Your task to perform on an android device: Search for a new lawnmower on Lowes.com Image 0: 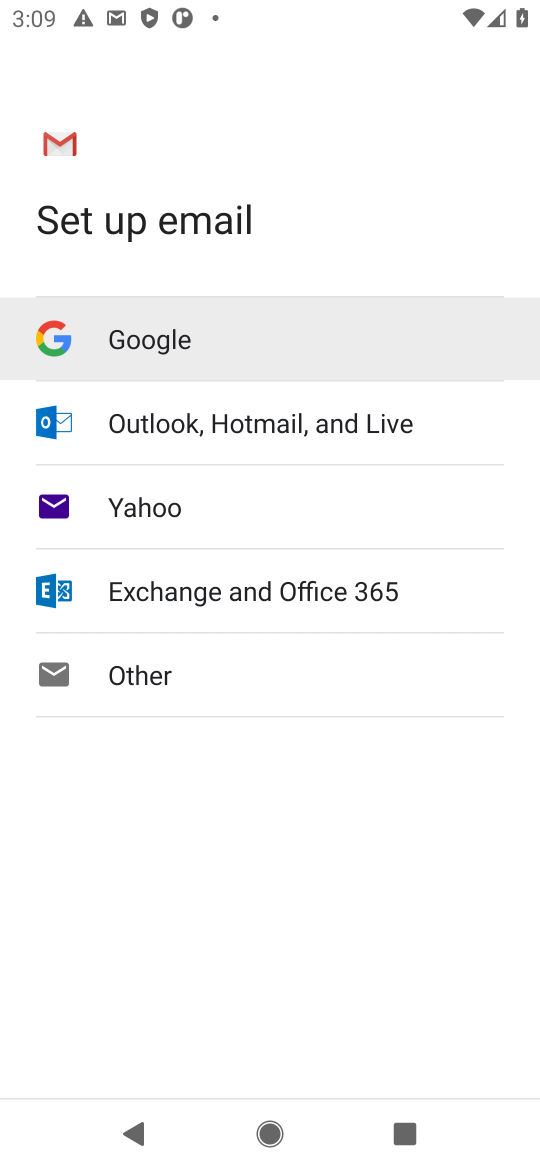
Step 0: press home button
Your task to perform on an android device: Search for a new lawnmower on Lowes.com Image 1: 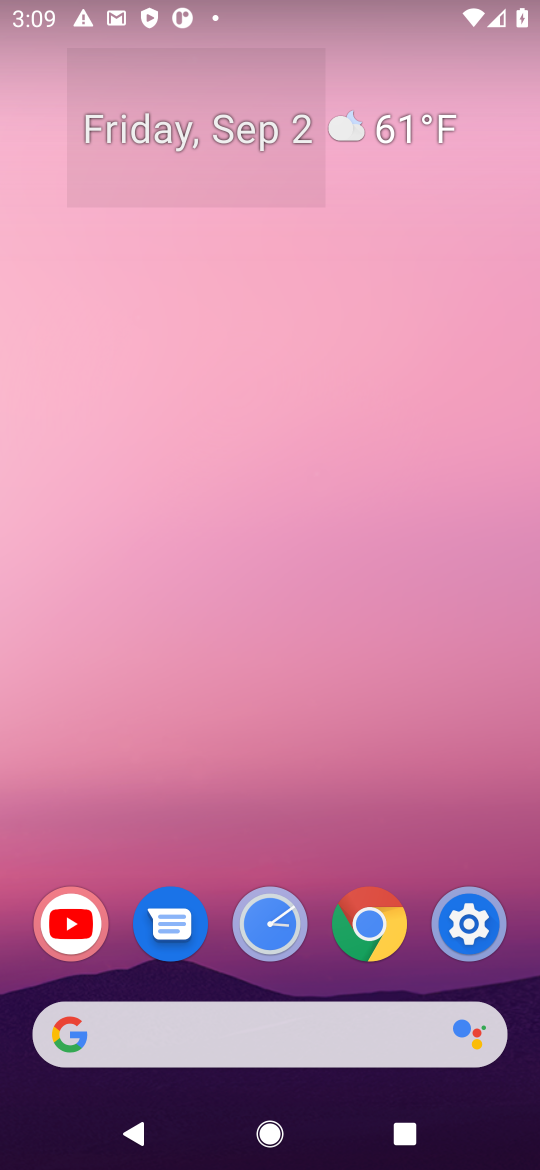
Step 1: click (388, 1032)
Your task to perform on an android device: Search for a new lawnmower on Lowes.com Image 2: 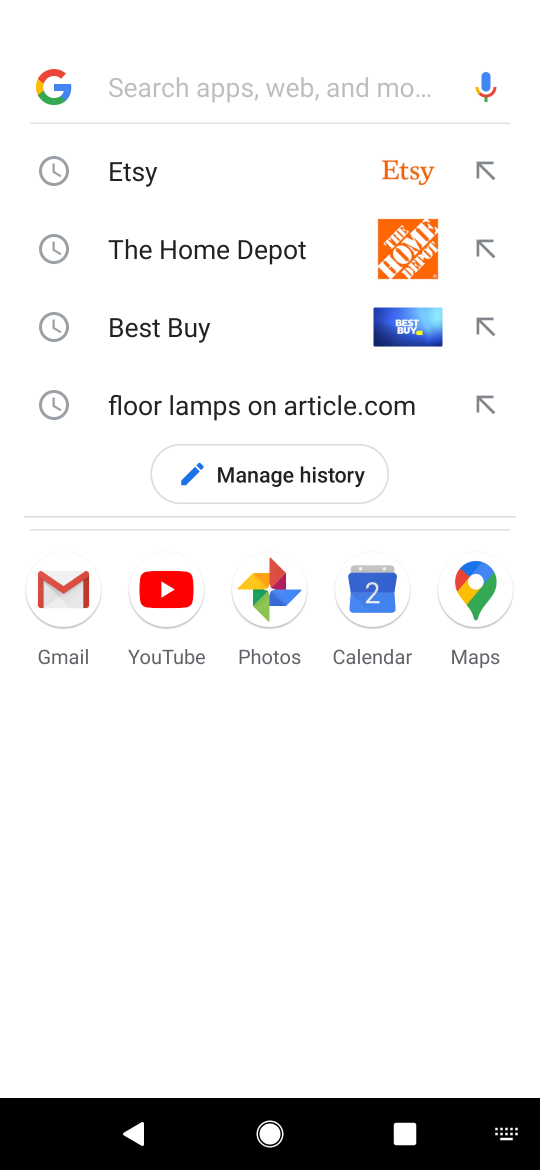
Step 2: press enter
Your task to perform on an android device: Search for a new lawnmower on Lowes.com Image 3: 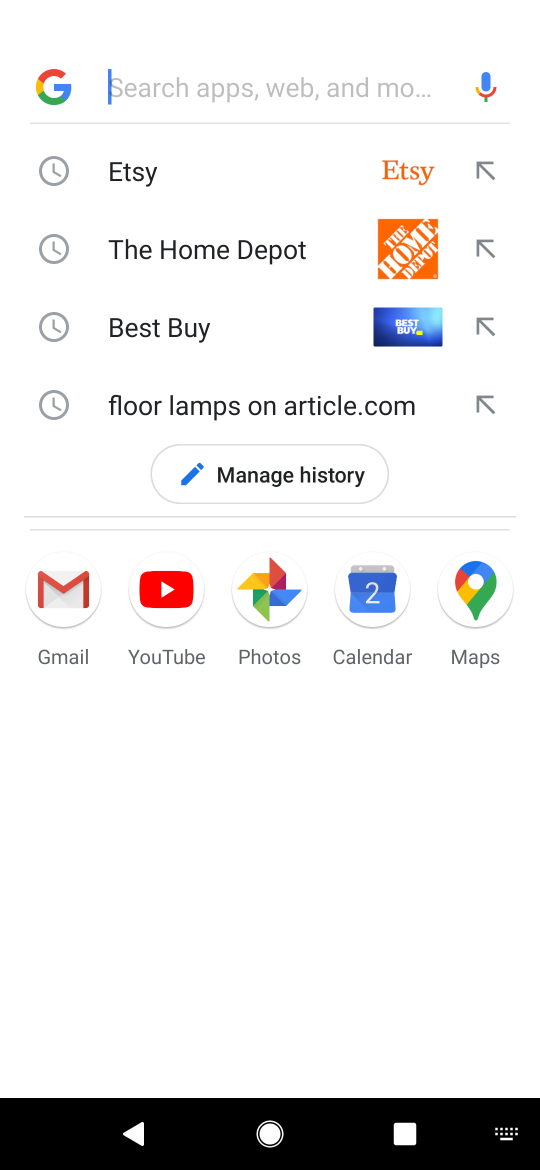
Step 3: type "lowes.com"
Your task to perform on an android device: Search for a new lawnmower on Lowes.com Image 4: 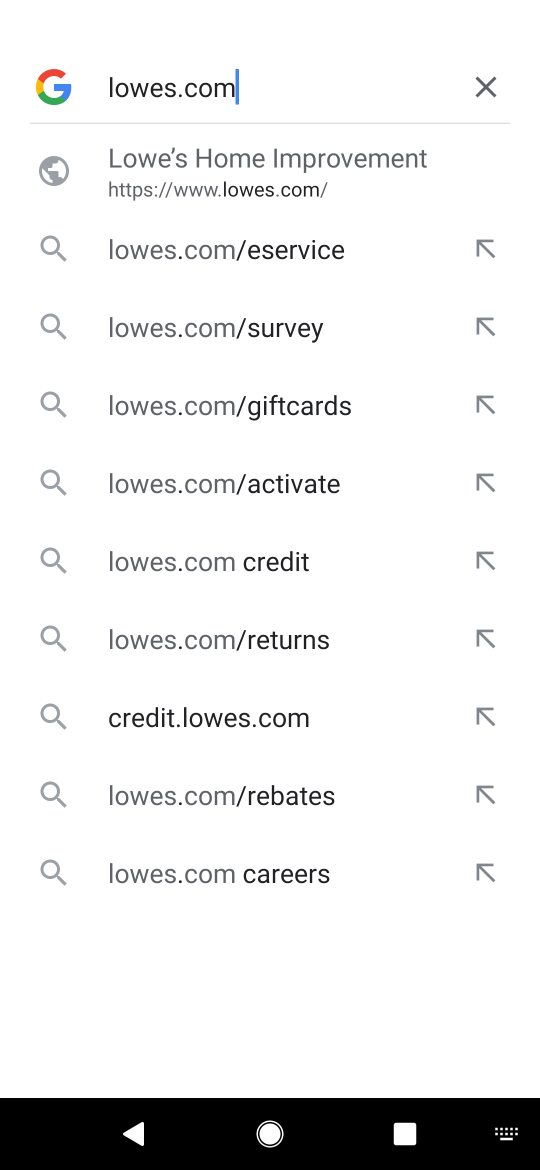
Step 4: click (307, 182)
Your task to perform on an android device: Search for a new lawnmower on Lowes.com Image 5: 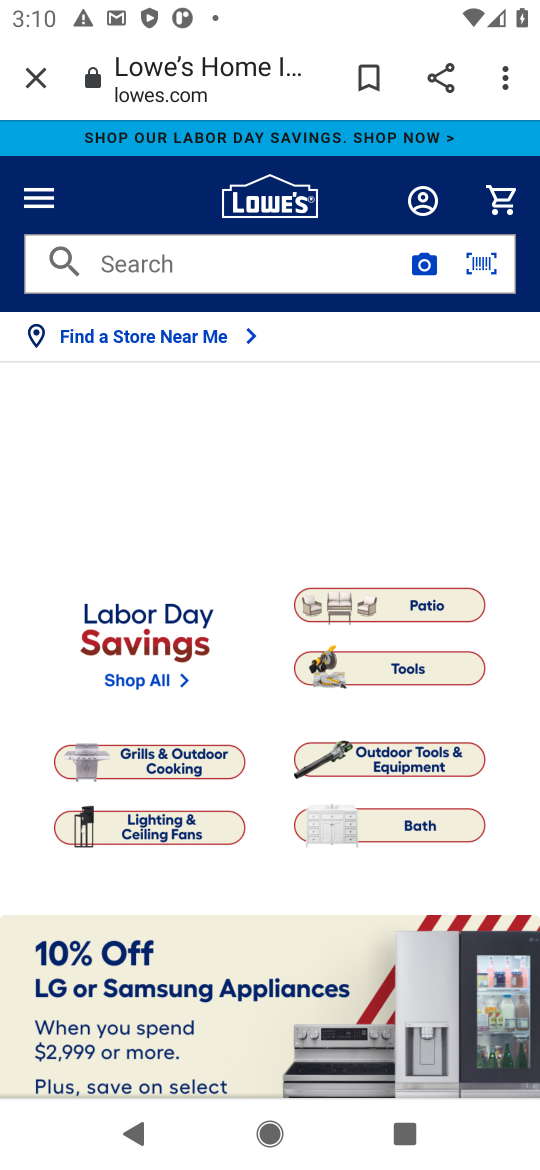
Step 5: click (203, 266)
Your task to perform on an android device: Search for a new lawnmower on Lowes.com Image 6: 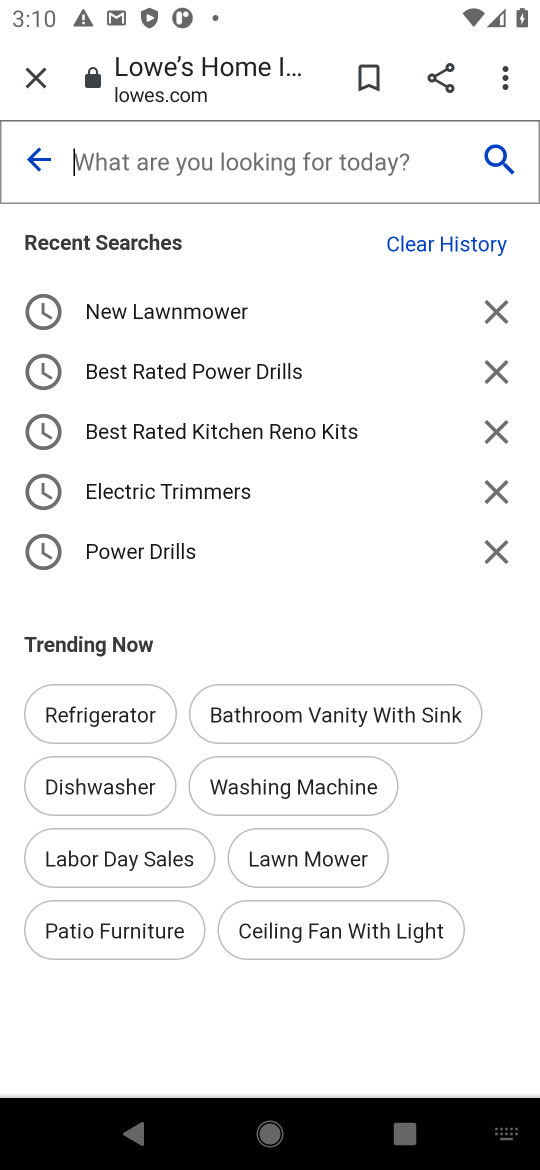
Step 6: click (207, 311)
Your task to perform on an android device: Search for a new lawnmower on Lowes.com Image 7: 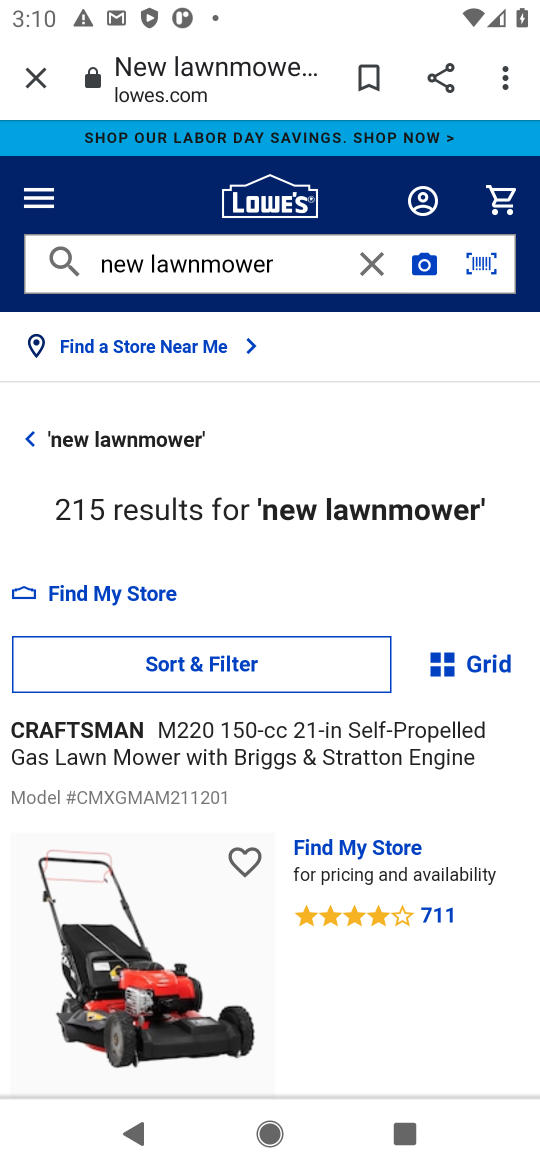
Step 7: task complete